Your task to perform on an android device: find snoozed emails in the gmail app Image 0: 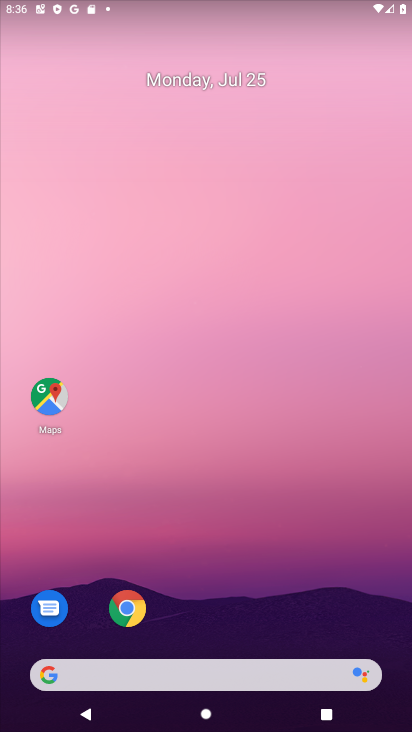
Step 0: drag from (233, 683) to (278, 173)
Your task to perform on an android device: find snoozed emails in the gmail app Image 1: 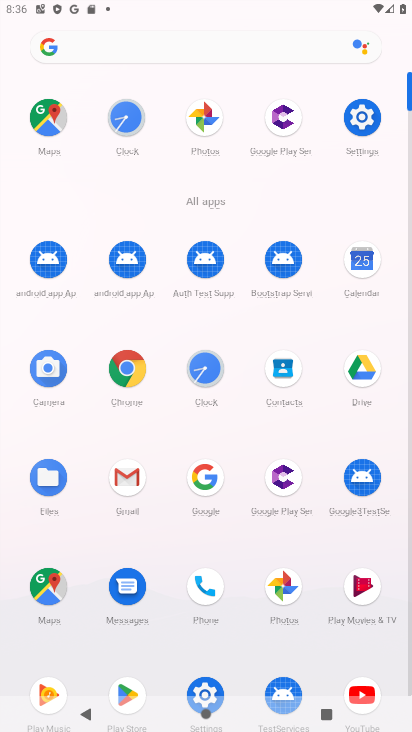
Step 1: click (119, 483)
Your task to perform on an android device: find snoozed emails in the gmail app Image 2: 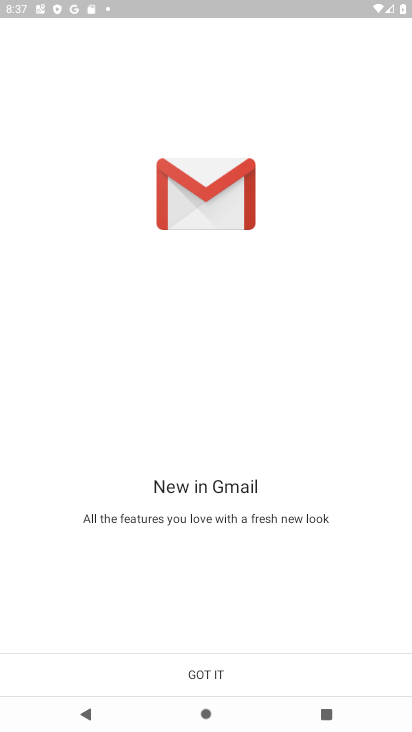
Step 2: click (206, 667)
Your task to perform on an android device: find snoozed emails in the gmail app Image 3: 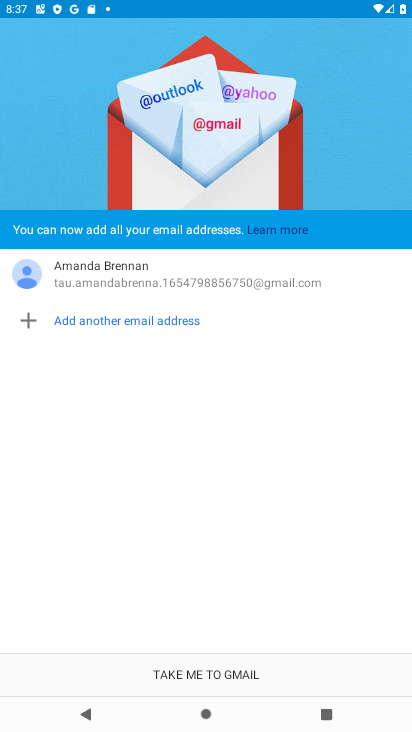
Step 3: click (204, 672)
Your task to perform on an android device: find snoozed emails in the gmail app Image 4: 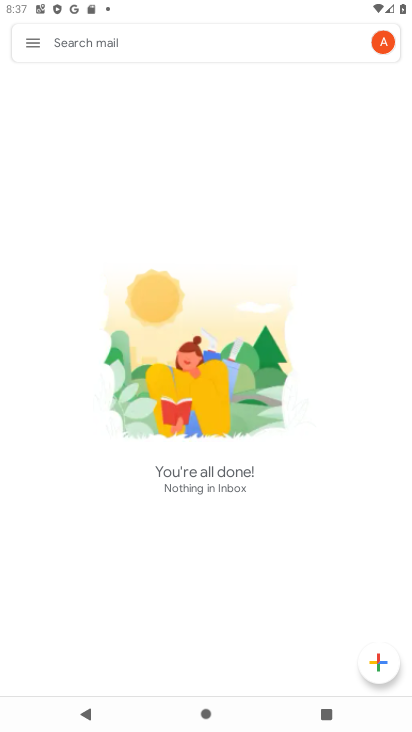
Step 4: click (25, 45)
Your task to perform on an android device: find snoozed emails in the gmail app Image 5: 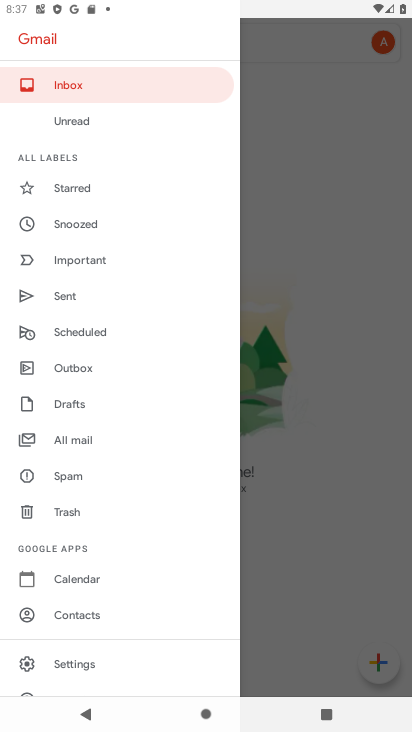
Step 5: click (68, 218)
Your task to perform on an android device: find snoozed emails in the gmail app Image 6: 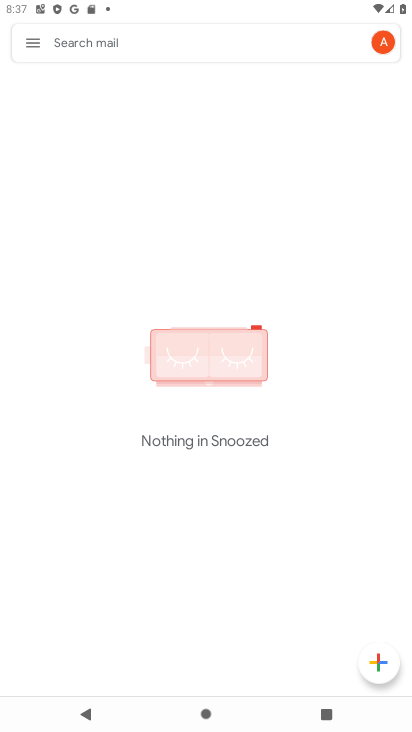
Step 6: task complete